Your task to perform on an android device: open app "Roku - Official Remote Control" (install if not already installed) Image 0: 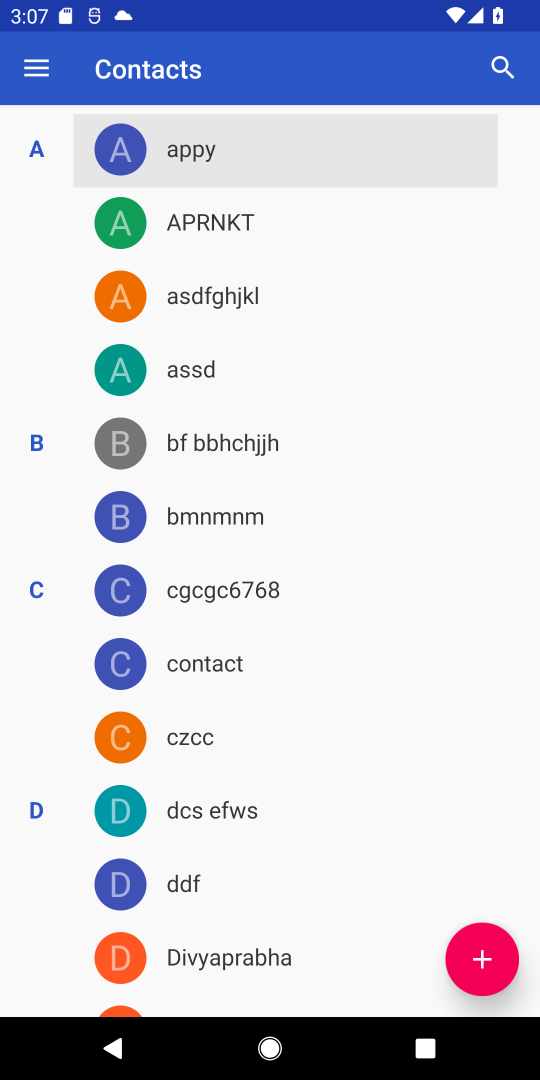
Step 0: press home button
Your task to perform on an android device: open app "Roku - Official Remote Control" (install if not already installed) Image 1: 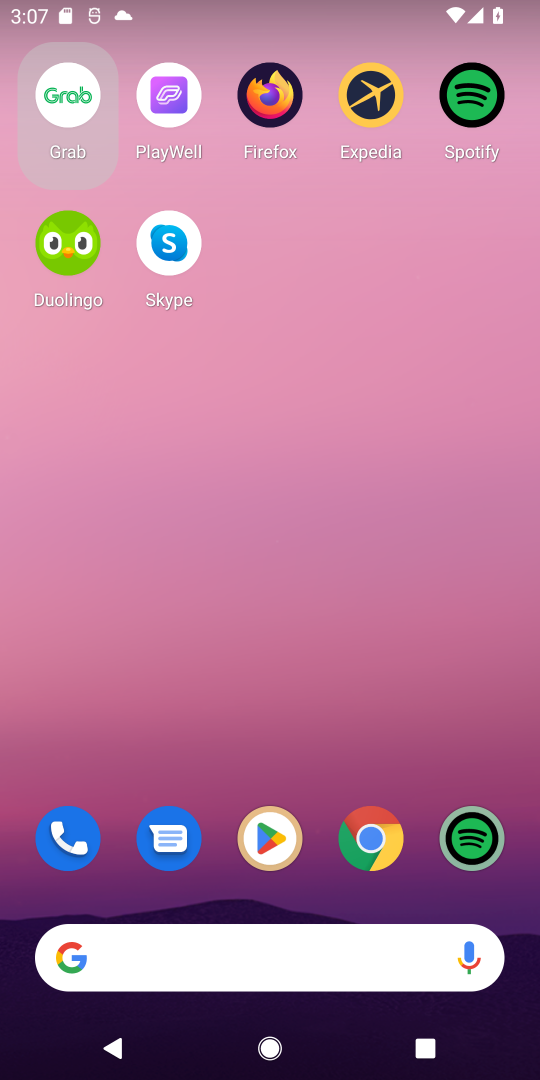
Step 1: click (259, 824)
Your task to perform on an android device: open app "Roku - Official Remote Control" (install if not already installed) Image 2: 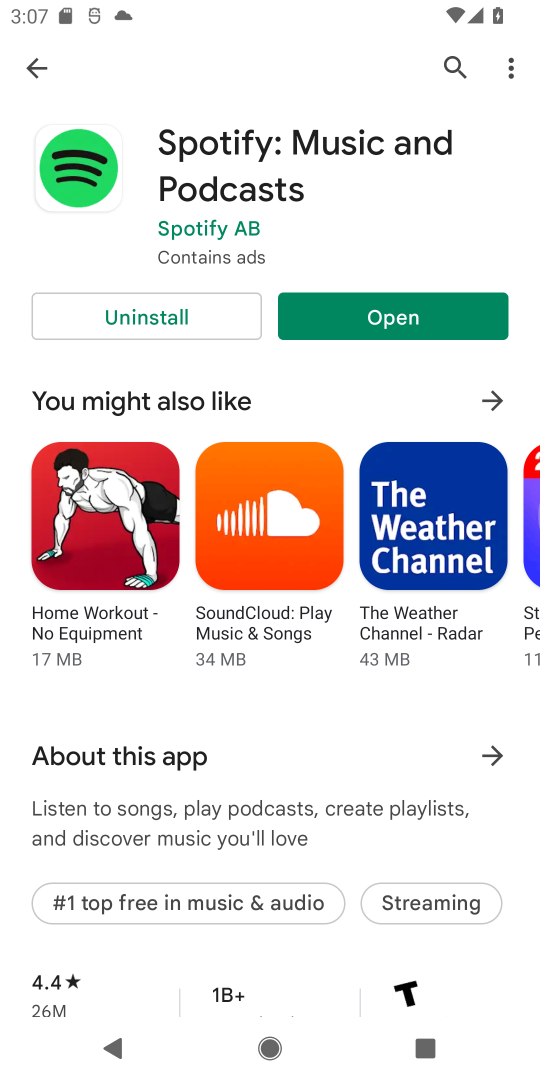
Step 2: click (34, 62)
Your task to perform on an android device: open app "Roku - Official Remote Control" (install if not already installed) Image 3: 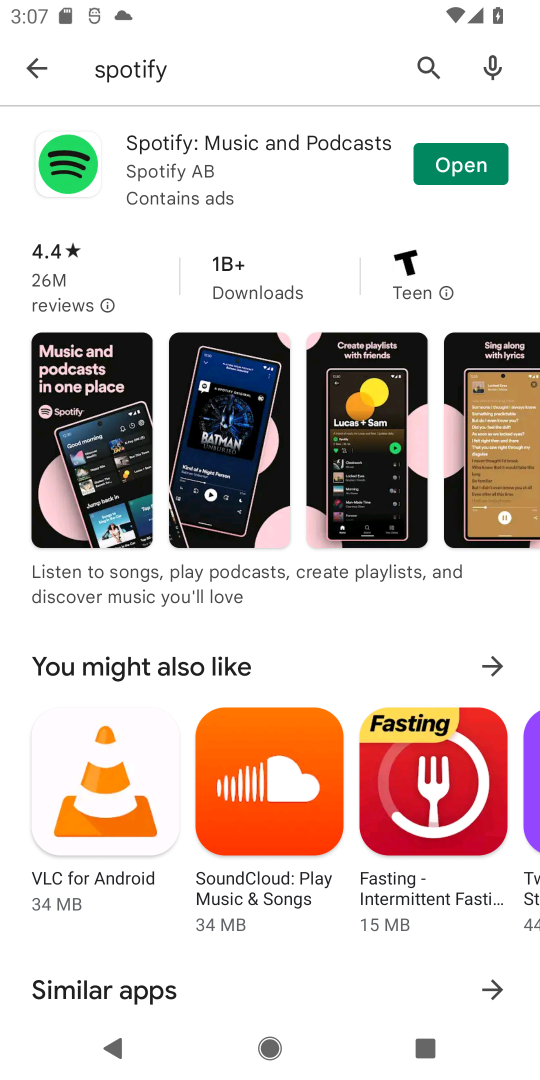
Step 3: click (38, 71)
Your task to perform on an android device: open app "Roku - Official Remote Control" (install if not already installed) Image 4: 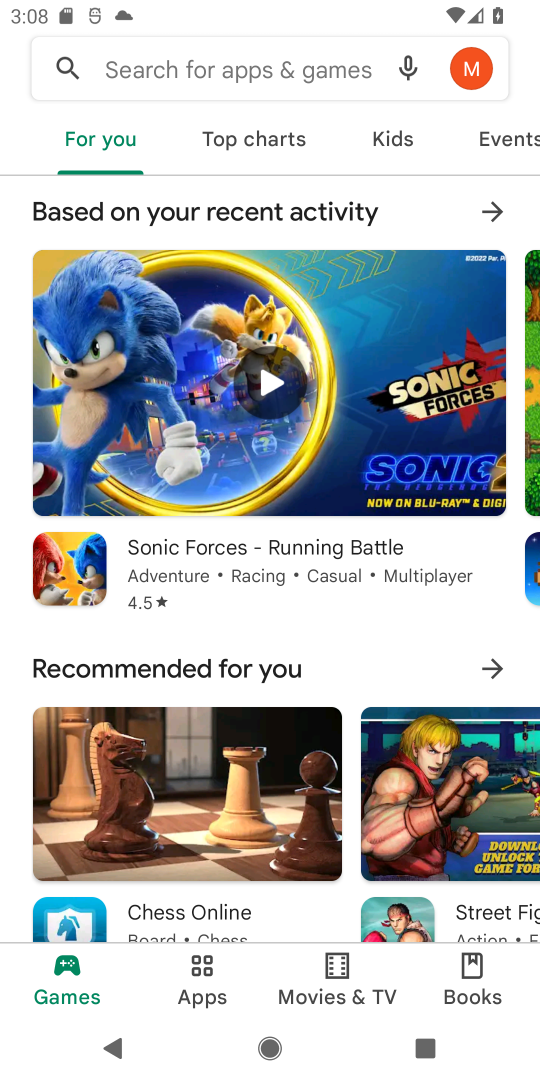
Step 4: click (235, 69)
Your task to perform on an android device: open app "Roku - Official Remote Control" (install if not already installed) Image 5: 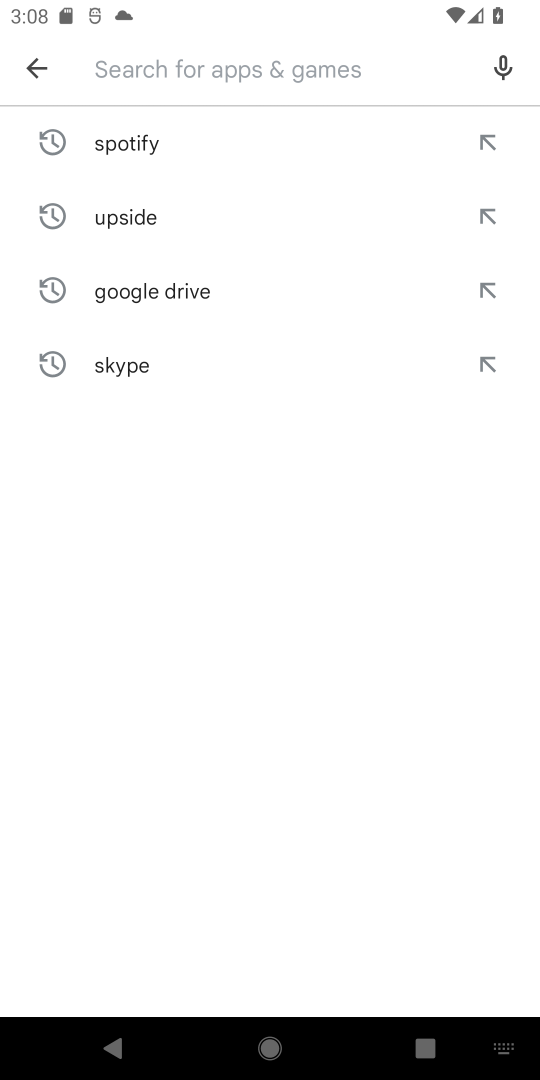
Step 5: type "Roku"
Your task to perform on an android device: open app "Roku - Official Remote Control" (install if not already installed) Image 6: 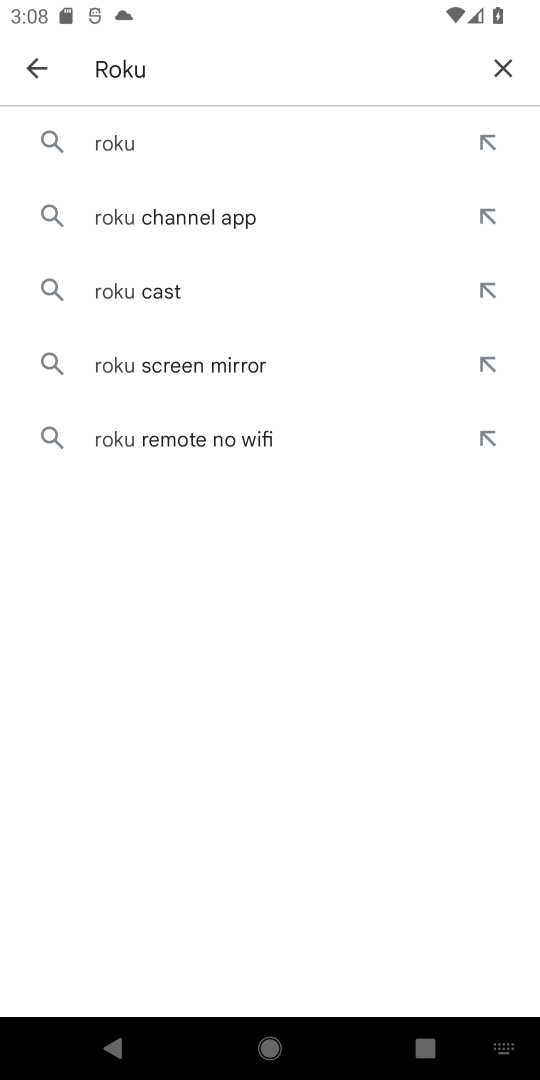
Step 6: click (87, 134)
Your task to perform on an android device: open app "Roku - Official Remote Control" (install if not already installed) Image 7: 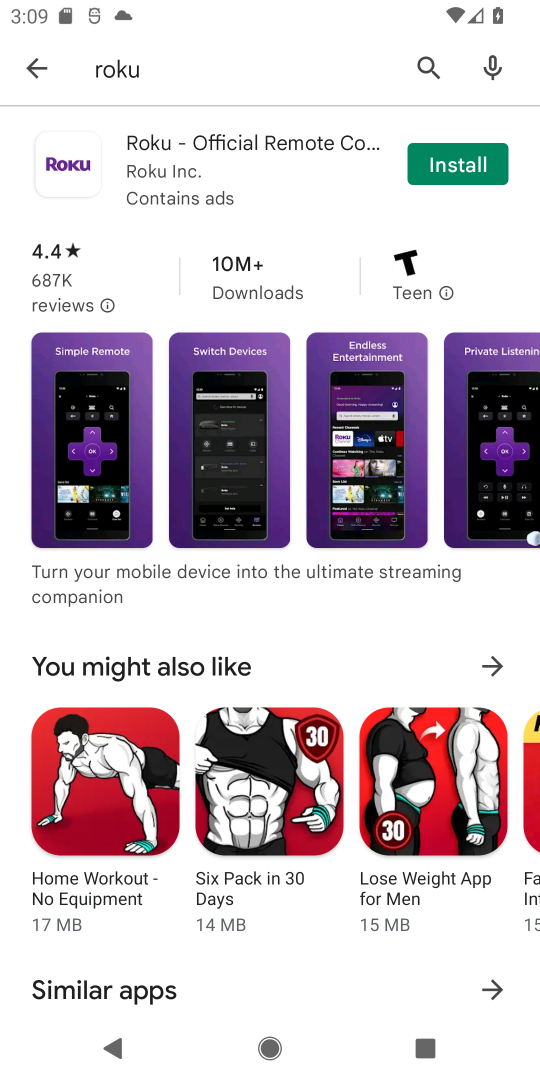
Step 7: click (478, 161)
Your task to perform on an android device: open app "Roku - Official Remote Control" (install if not already installed) Image 8: 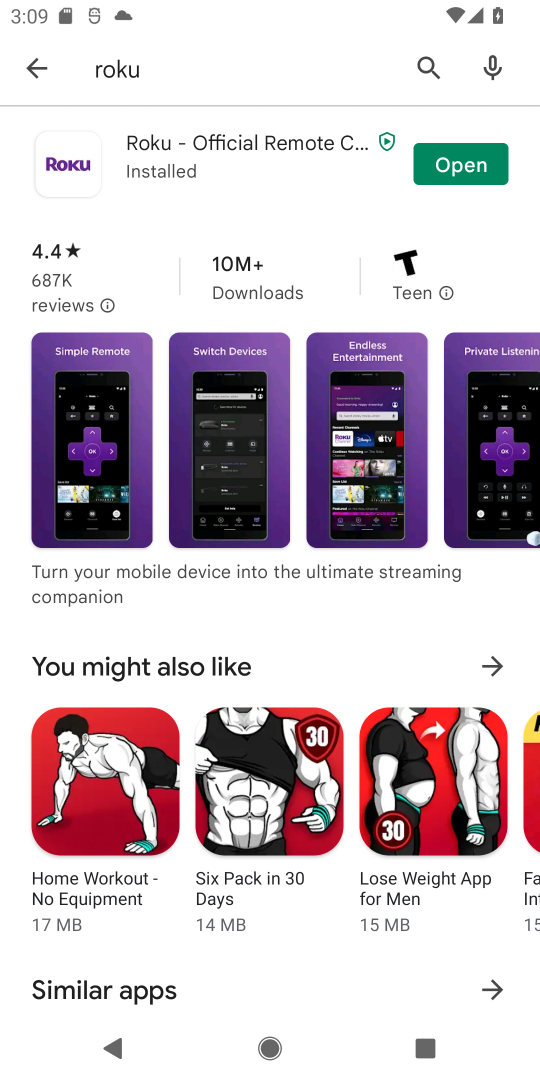
Step 8: click (478, 161)
Your task to perform on an android device: open app "Roku - Official Remote Control" (install if not already installed) Image 9: 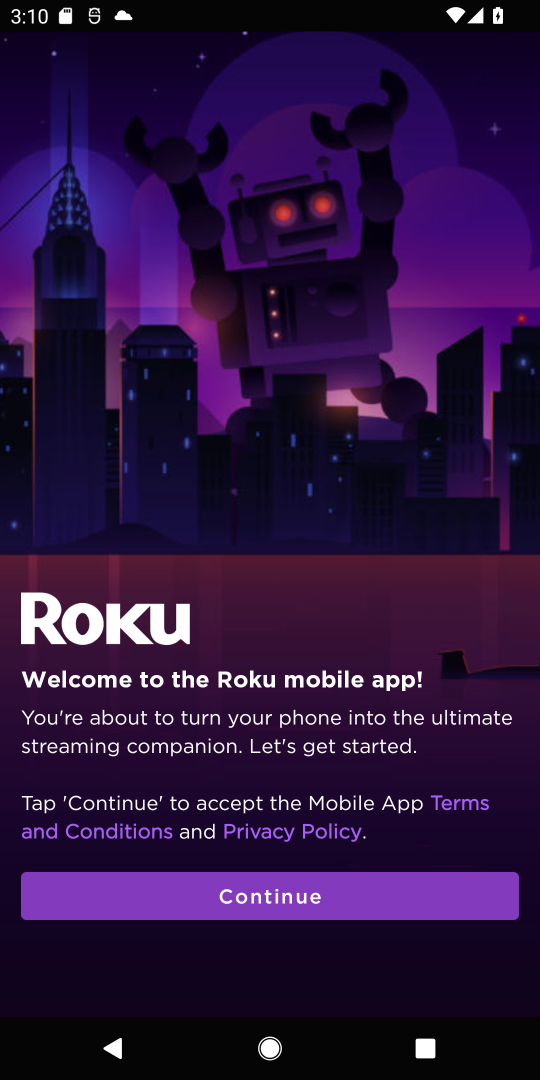
Step 9: task complete